Your task to perform on an android device: read, delete, or share a saved page in the chrome app Image 0: 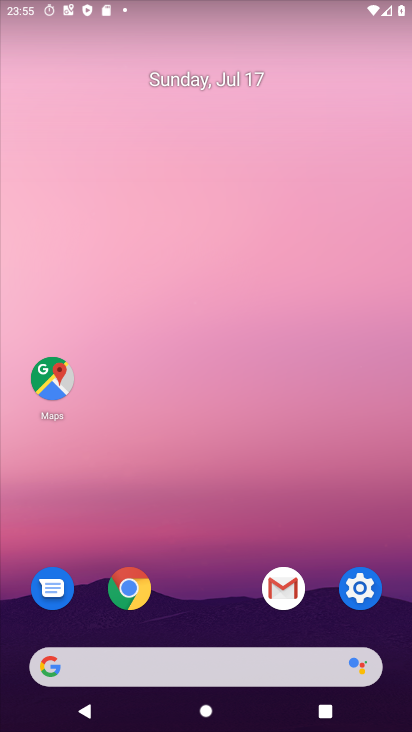
Step 0: click (128, 596)
Your task to perform on an android device: read, delete, or share a saved page in the chrome app Image 1: 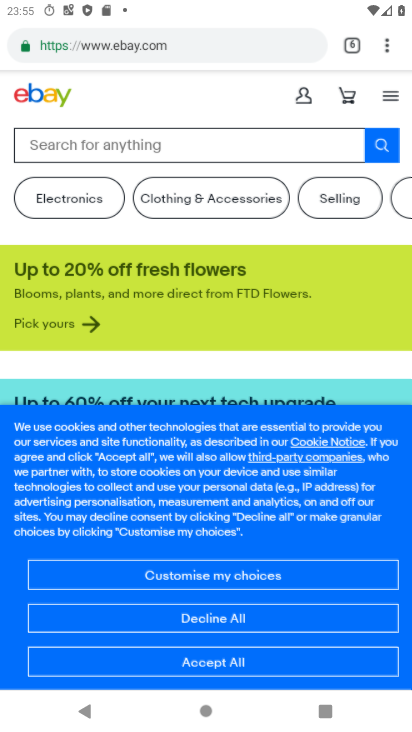
Step 1: click (387, 49)
Your task to perform on an android device: read, delete, or share a saved page in the chrome app Image 2: 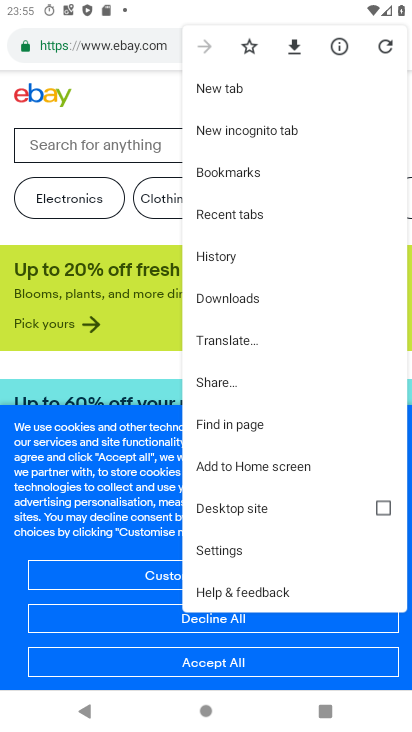
Step 2: click (238, 382)
Your task to perform on an android device: read, delete, or share a saved page in the chrome app Image 3: 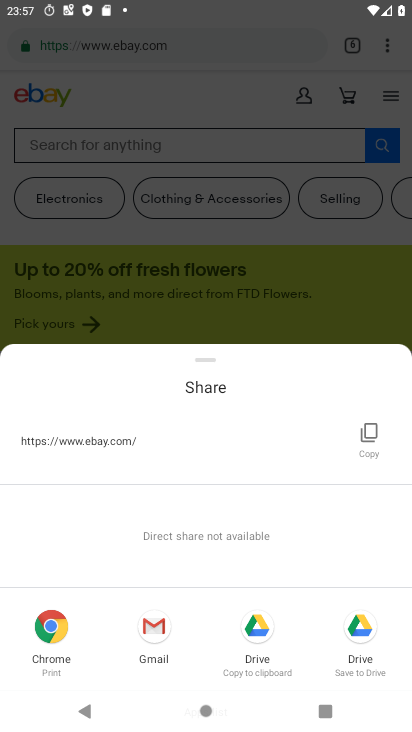
Step 3: task complete